Your task to perform on an android device: Clear the cart on amazon. Add "jbl charge 4" to the cart on amazon, then select checkout. Image 0: 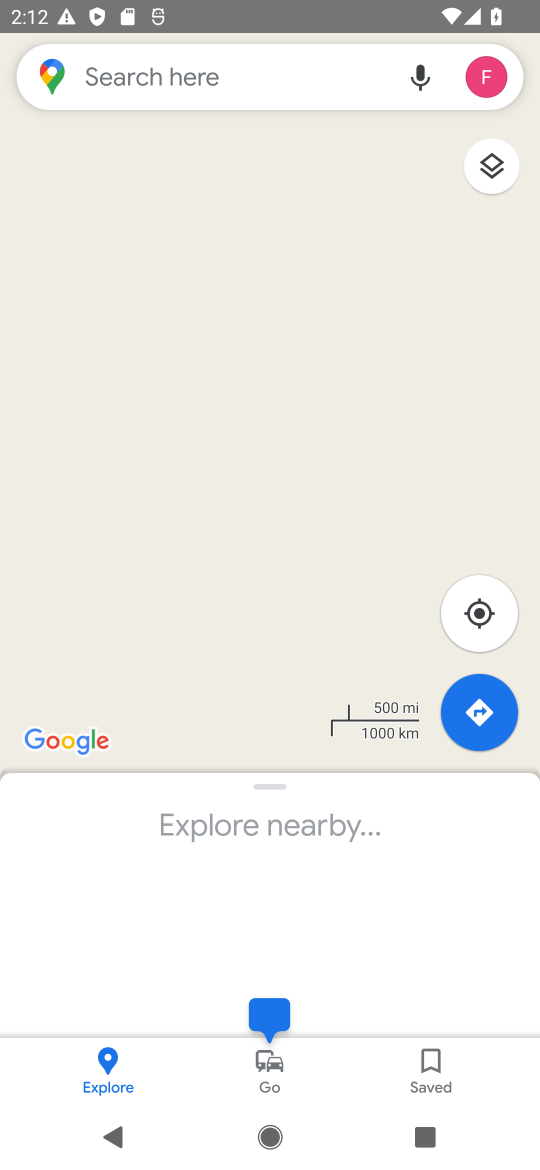
Step 0: press home button
Your task to perform on an android device: Clear the cart on amazon. Add "jbl charge 4" to the cart on amazon, then select checkout. Image 1: 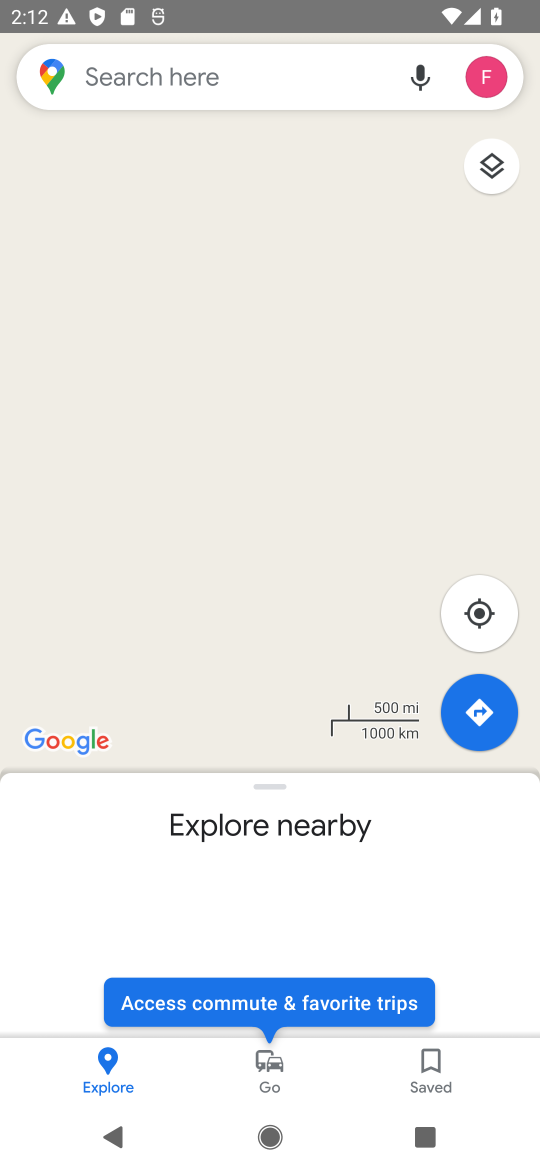
Step 1: press home button
Your task to perform on an android device: Clear the cart on amazon. Add "jbl charge 4" to the cart on amazon, then select checkout. Image 2: 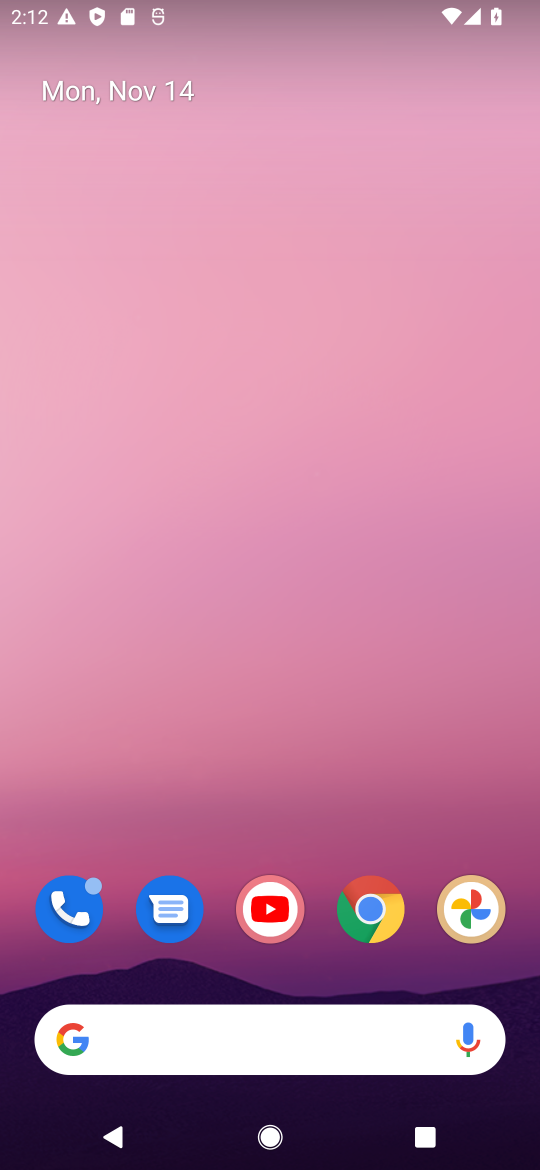
Step 2: drag from (317, 986) to (233, 114)
Your task to perform on an android device: Clear the cart on amazon. Add "jbl charge 4" to the cart on amazon, then select checkout. Image 3: 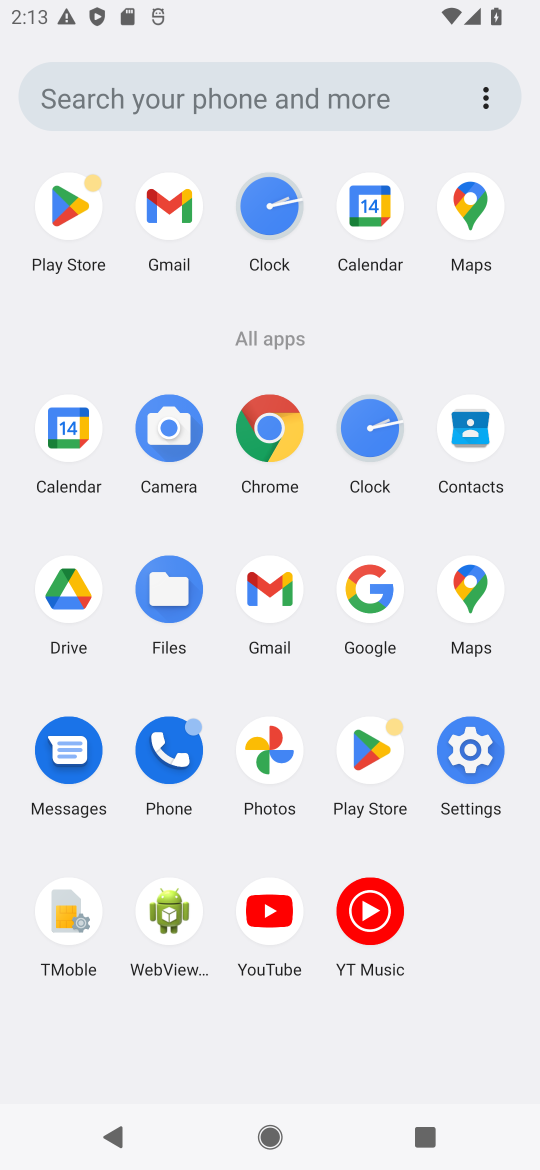
Step 3: click (258, 429)
Your task to perform on an android device: Clear the cart on amazon. Add "jbl charge 4" to the cart on amazon, then select checkout. Image 4: 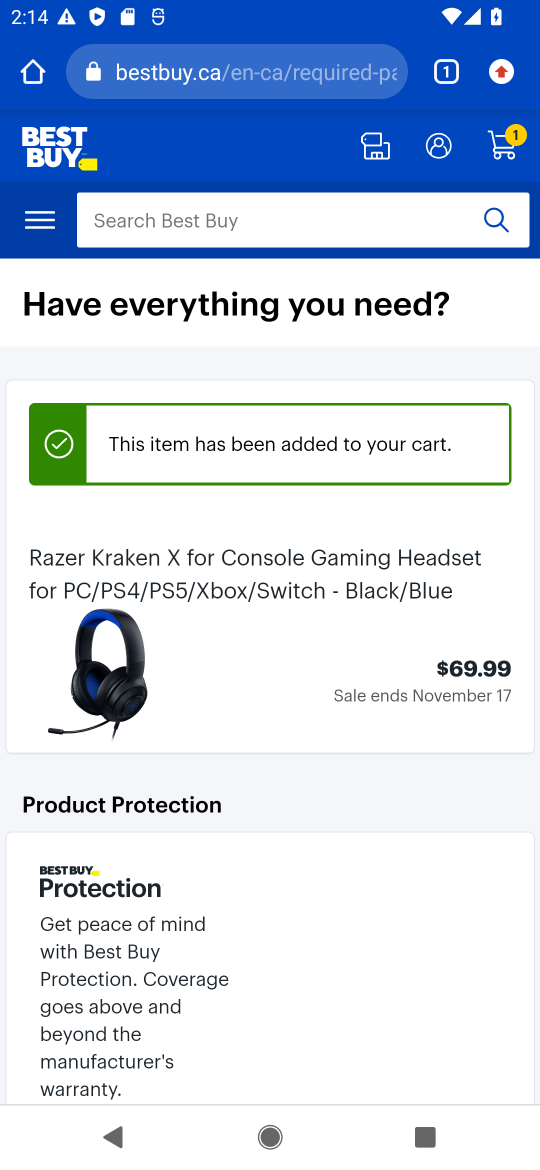
Step 4: click (275, 75)
Your task to perform on an android device: Clear the cart on amazon. Add "jbl charge 4" to the cart on amazon, then select checkout. Image 5: 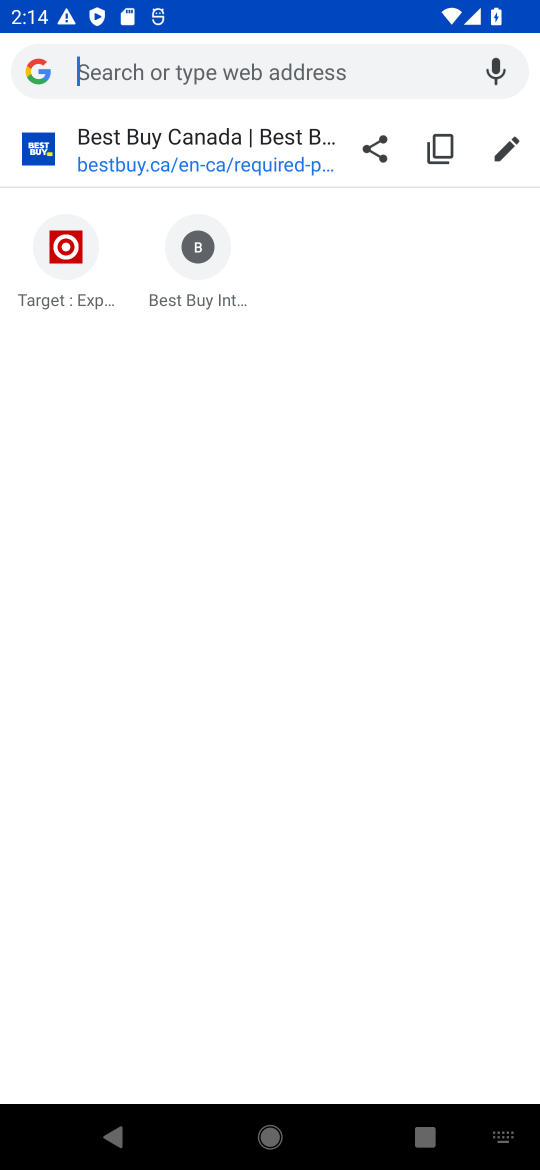
Step 5: type "amazon.com"
Your task to perform on an android device: Clear the cart on amazon. Add "jbl charge 4" to the cart on amazon, then select checkout. Image 6: 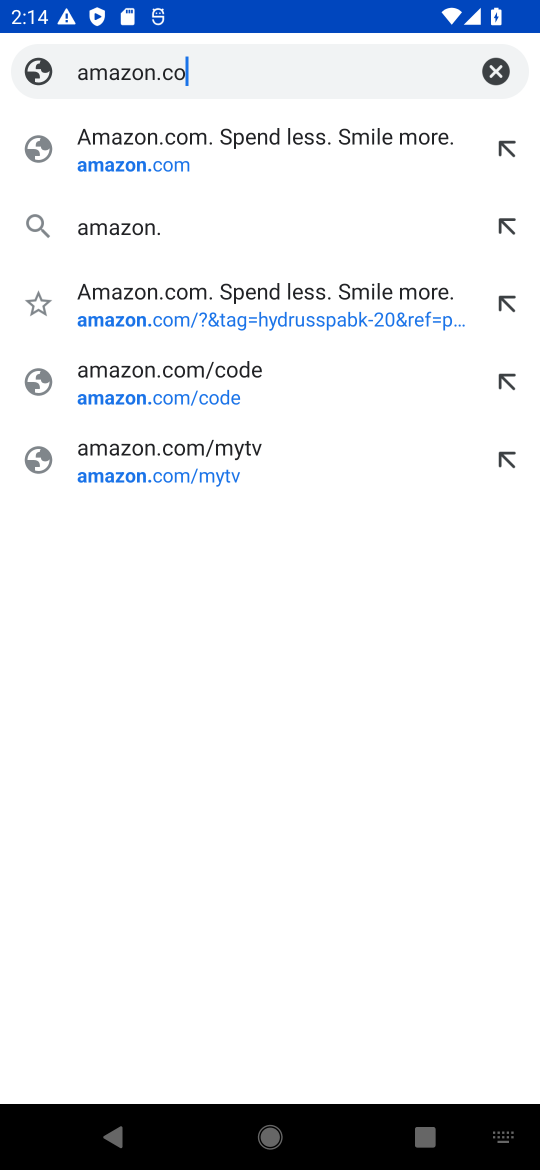
Step 6: press enter
Your task to perform on an android device: Clear the cart on amazon. Add "jbl charge 4" to the cart on amazon, then select checkout. Image 7: 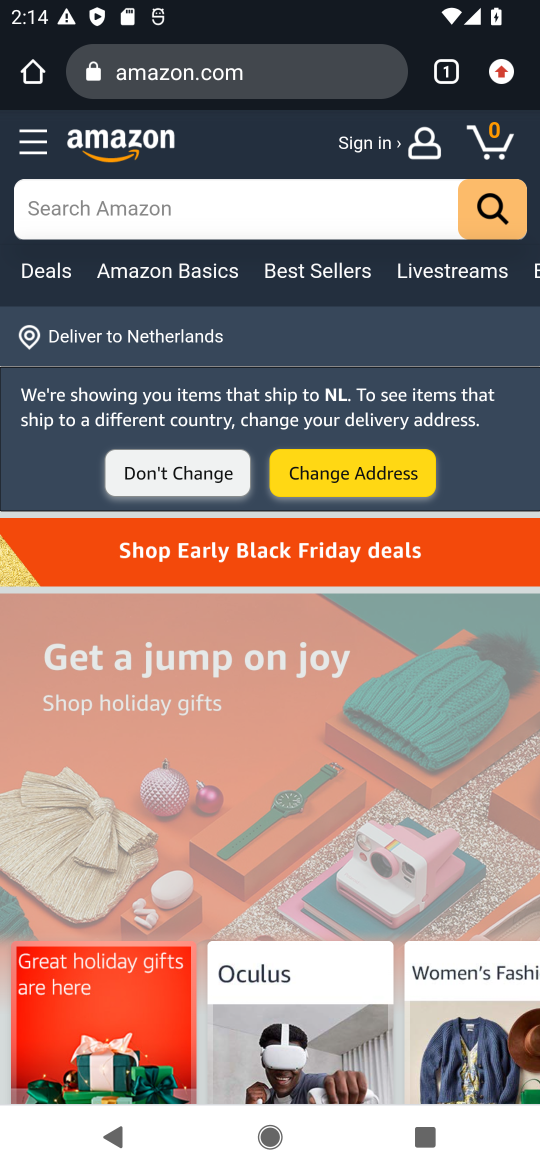
Step 7: click (486, 150)
Your task to perform on an android device: Clear the cart on amazon. Add "jbl charge 4" to the cart on amazon, then select checkout. Image 8: 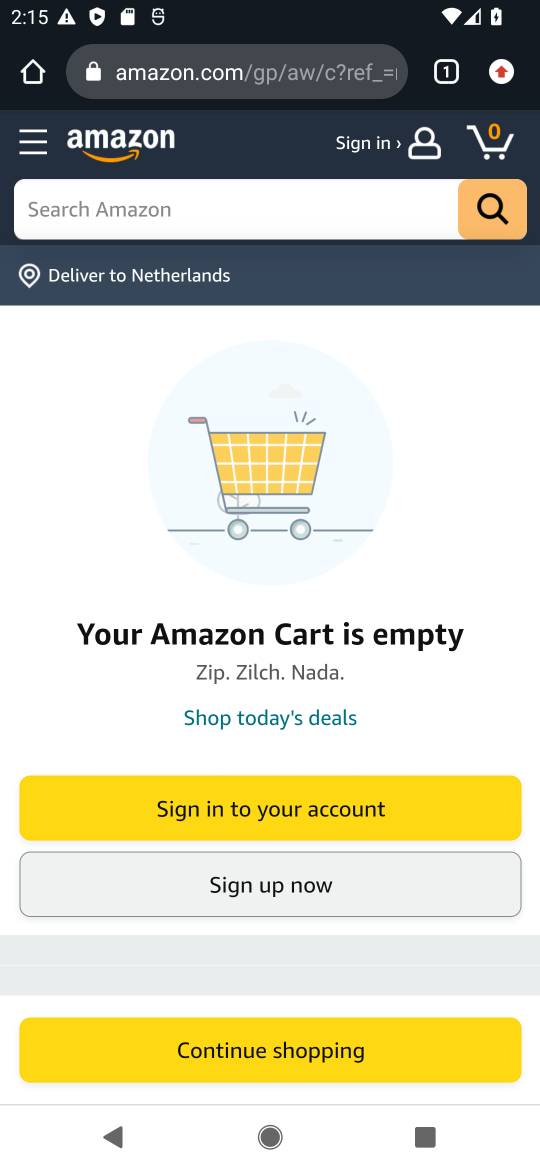
Step 8: click (287, 221)
Your task to perform on an android device: Clear the cart on amazon. Add "jbl charge 4" to the cart on amazon, then select checkout. Image 9: 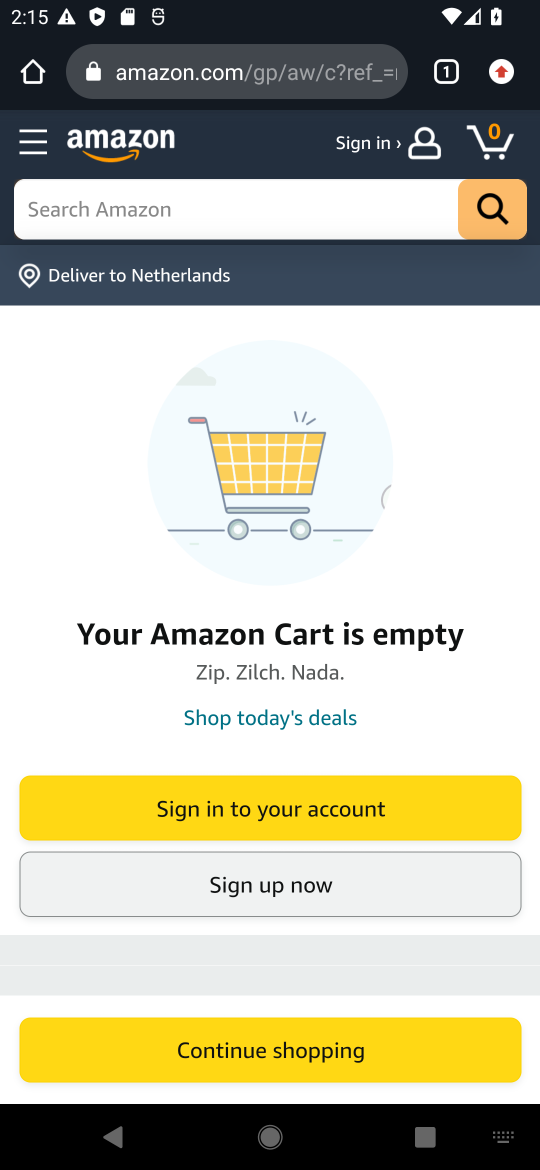
Step 9: type "jbl charge 4"
Your task to perform on an android device: Clear the cart on amazon. Add "jbl charge 4" to the cart on amazon, then select checkout. Image 10: 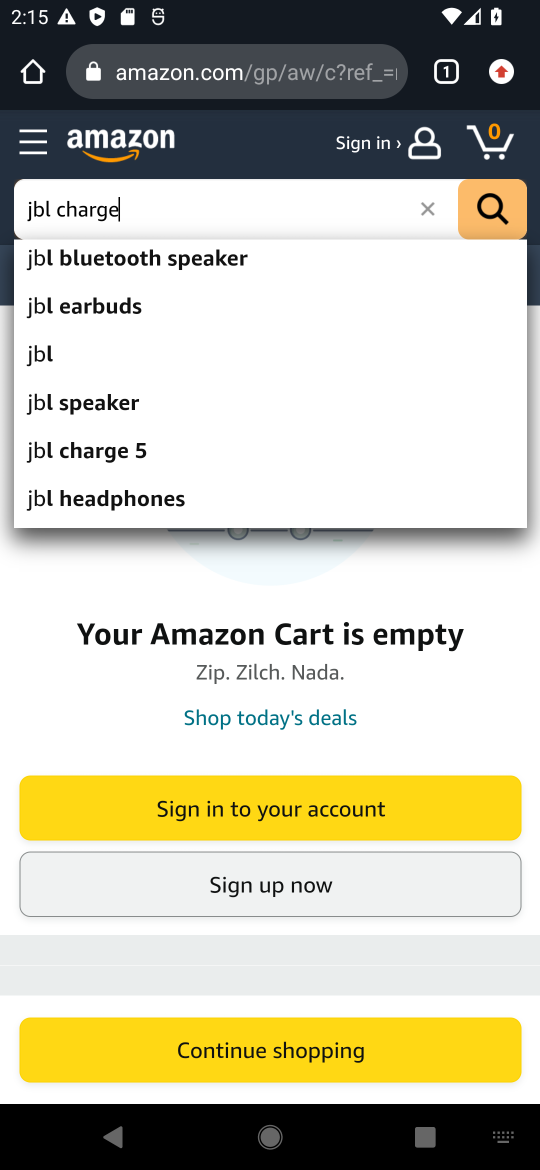
Step 10: press enter
Your task to perform on an android device: Clear the cart on amazon. Add "jbl charge 4" to the cart on amazon, then select checkout. Image 11: 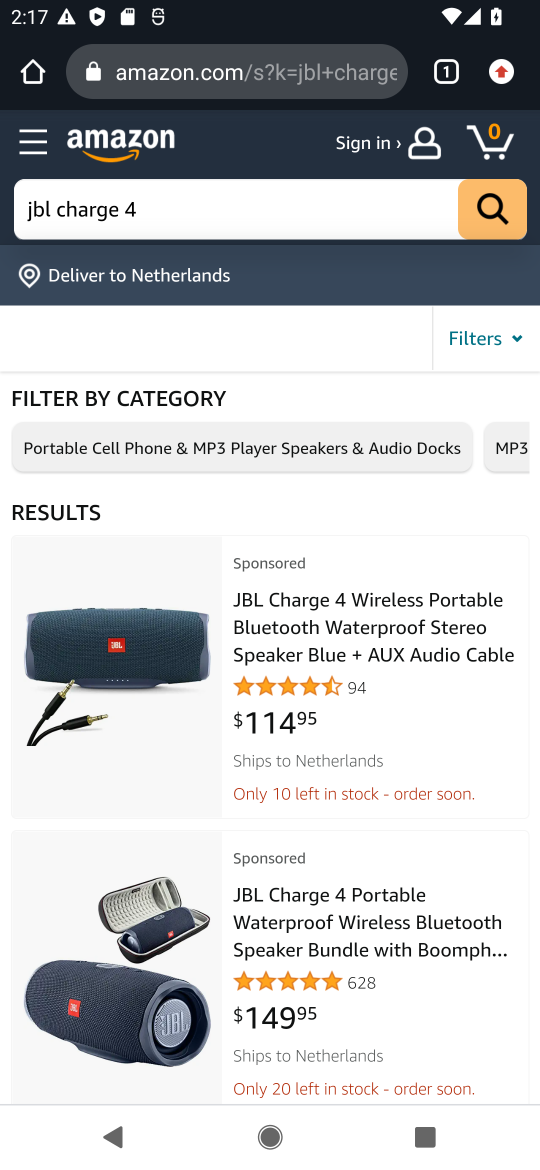
Step 11: drag from (368, 990) to (357, 289)
Your task to perform on an android device: Clear the cart on amazon. Add "jbl charge 4" to the cart on amazon, then select checkout. Image 12: 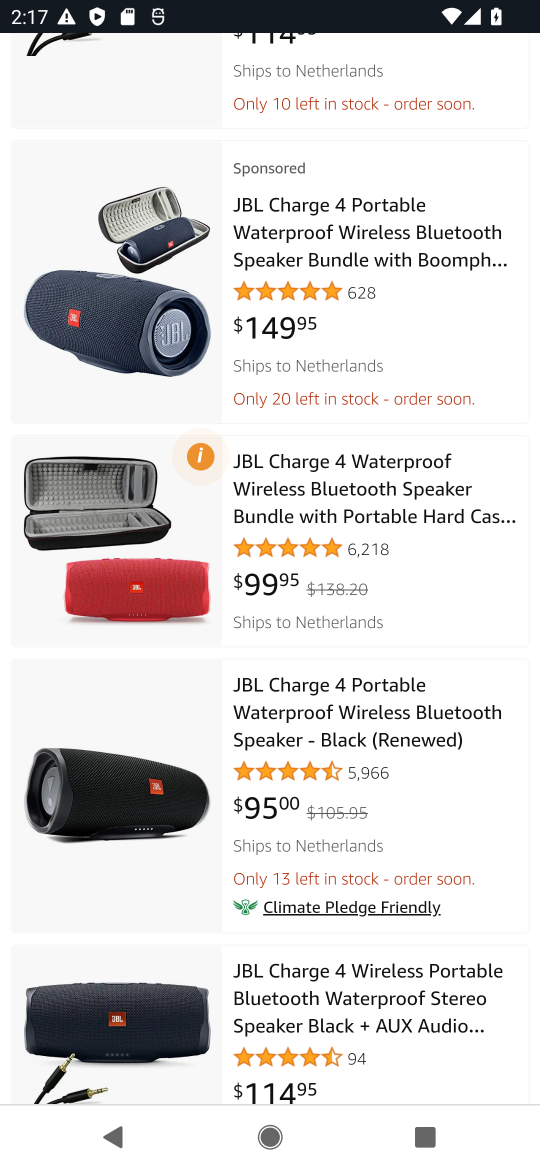
Step 12: click (350, 493)
Your task to perform on an android device: Clear the cart on amazon. Add "jbl charge 4" to the cart on amazon, then select checkout. Image 13: 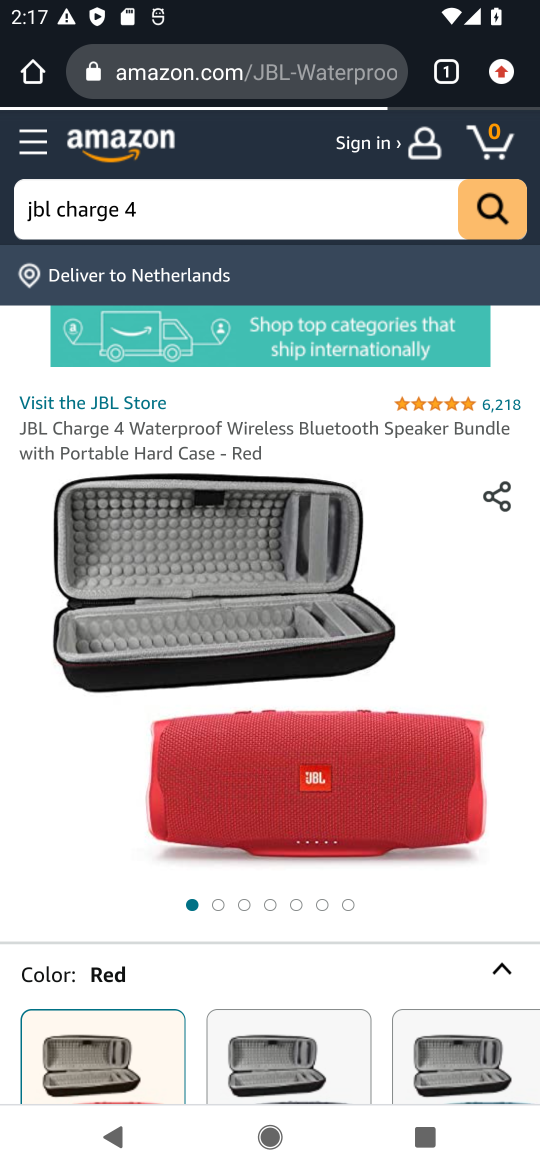
Step 13: drag from (336, 807) to (341, 406)
Your task to perform on an android device: Clear the cart on amazon. Add "jbl charge 4" to the cart on amazon, then select checkout. Image 14: 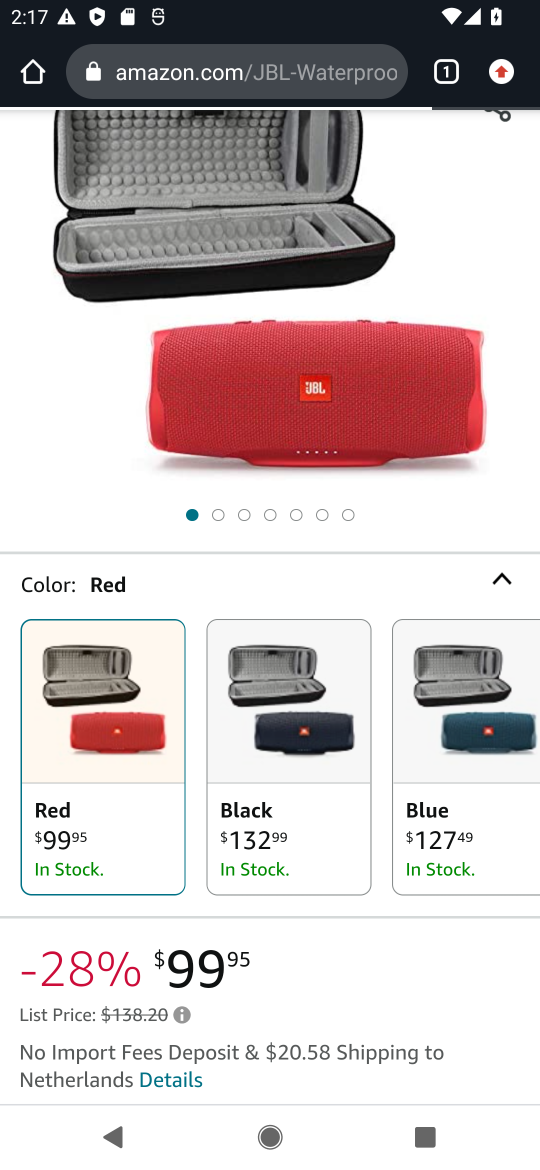
Step 14: drag from (264, 762) to (266, 401)
Your task to perform on an android device: Clear the cart on amazon. Add "jbl charge 4" to the cart on amazon, then select checkout. Image 15: 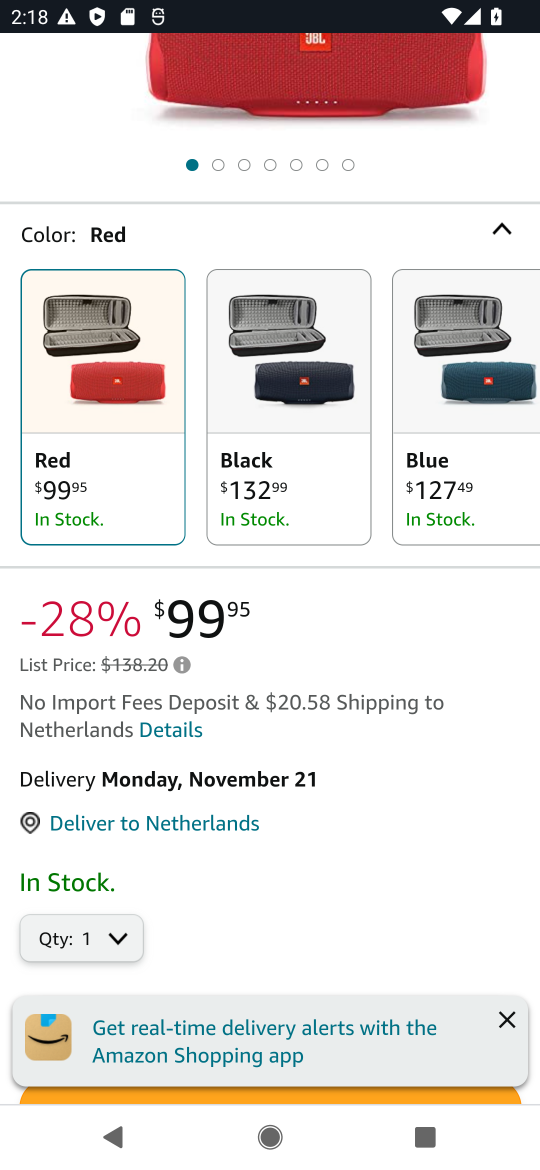
Step 15: drag from (325, 794) to (399, 180)
Your task to perform on an android device: Clear the cart on amazon. Add "jbl charge 4" to the cart on amazon, then select checkout. Image 16: 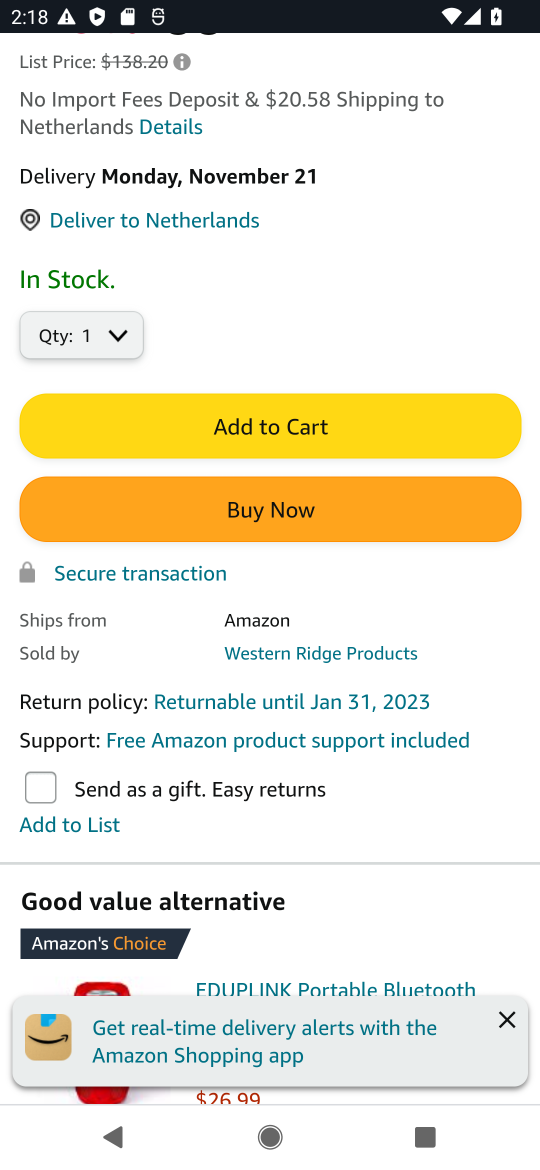
Step 16: drag from (309, 357) to (327, 1120)
Your task to perform on an android device: Clear the cart on amazon. Add "jbl charge 4" to the cart on amazon, then select checkout. Image 17: 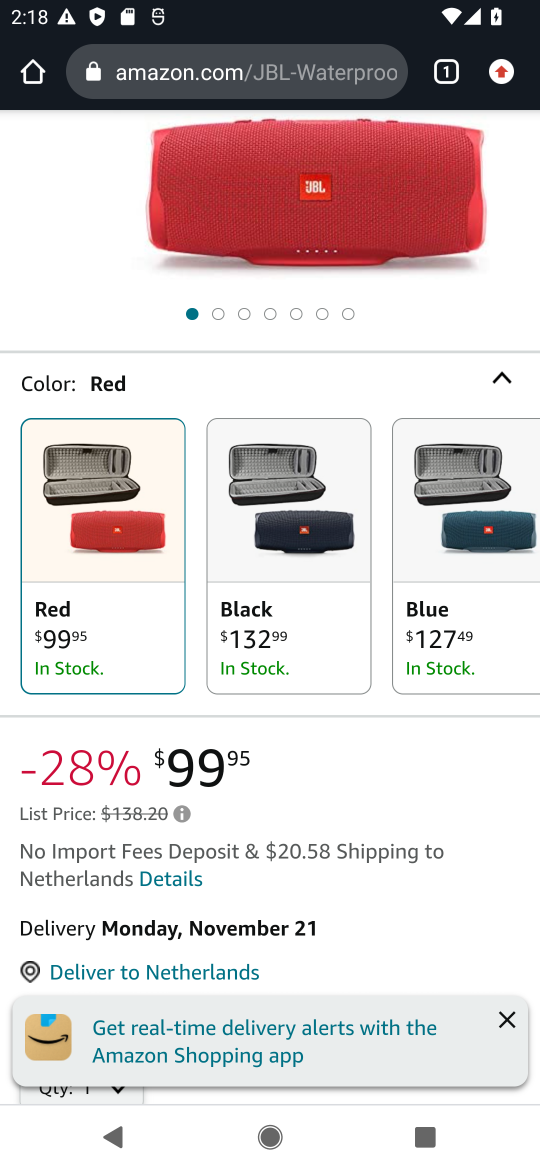
Step 17: drag from (336, 804) to (406, 248)
Your task to perform on an android device: Clear the cart on amazon. Add "jbl charge 4" to the cart on amazon, then select checkout. Image 18: 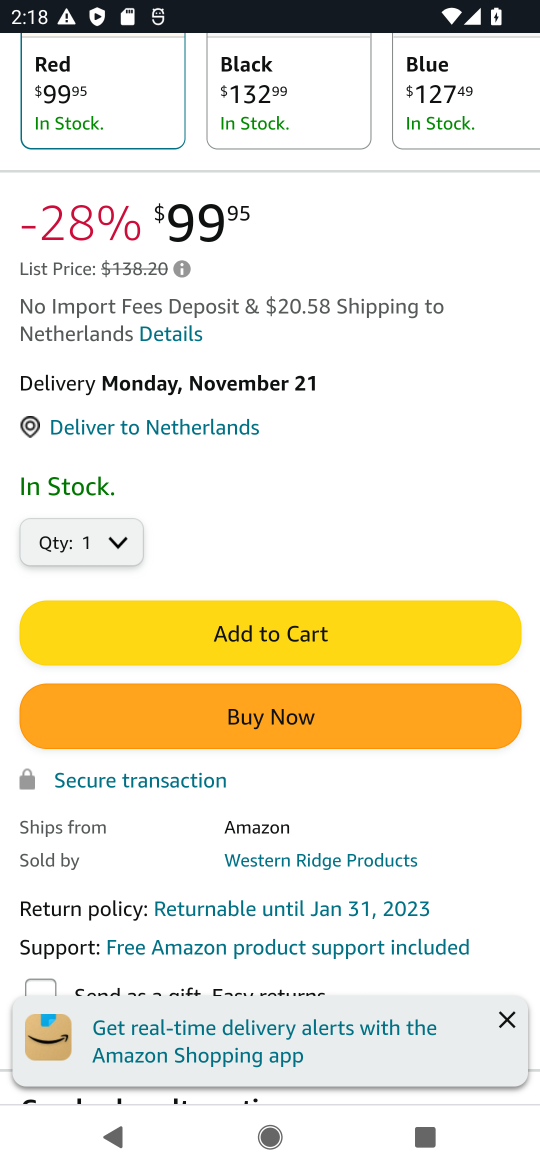
Step 18: click (319, 641)
Your task to perform on an android device: Clear the cart on amazon. Add "jbl charge 4" to the cart on amazon, then select checkout. Image 19: 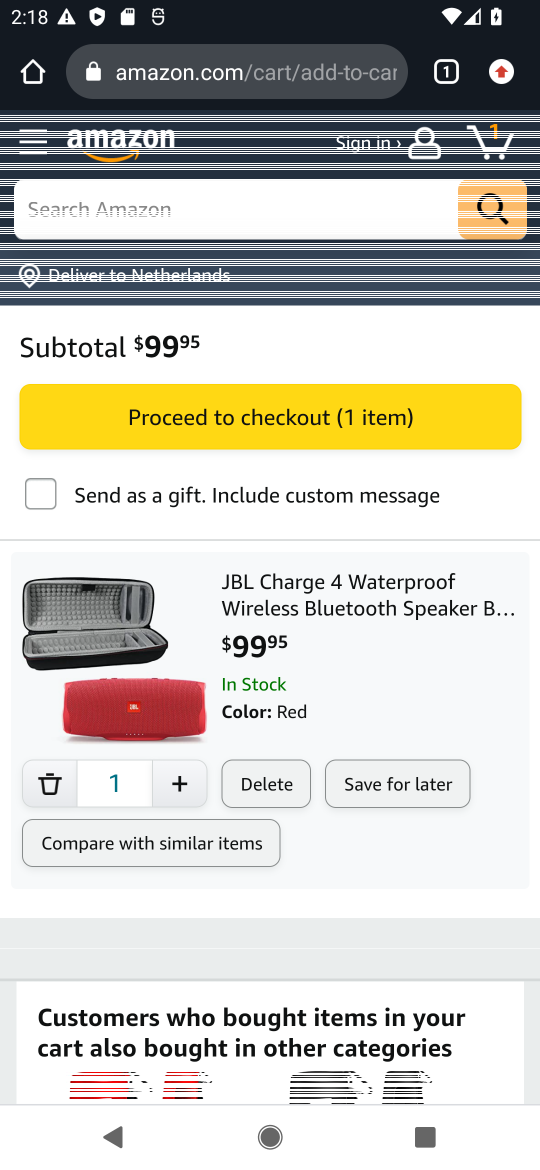
Step 19: click (298, 409)
Your task to perform on an android device: Clear the cart on amazon. Add "jbl charge 4" to the cart on amazon, then select checkout. Image 20: 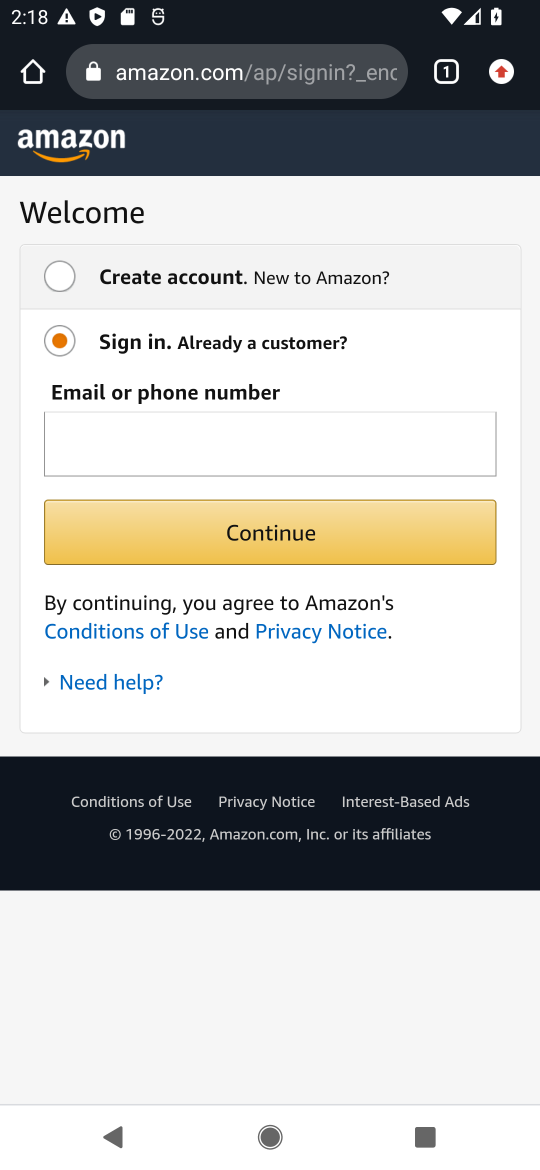
Step 20: task complete